Your task to perform on an android device: Search for logitech g pro on target, select the first entry, add it to the cart, then select checkout. Image 0: 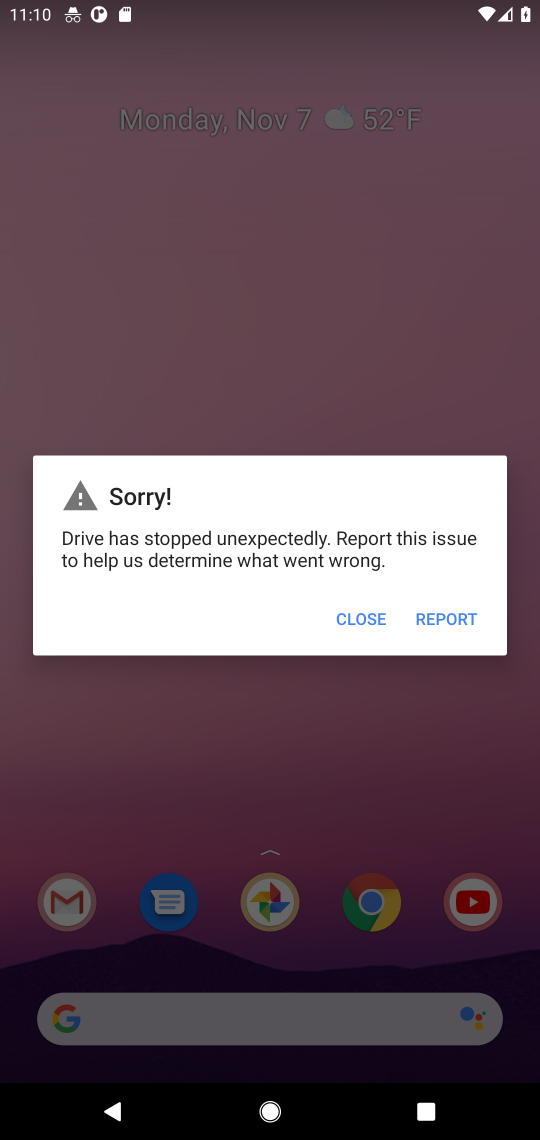
Step 0: press home button
Your task to perform on an android device: Search for logitech g pro on target, select the first entry, add it to the cart, then select checkout. Image 1: 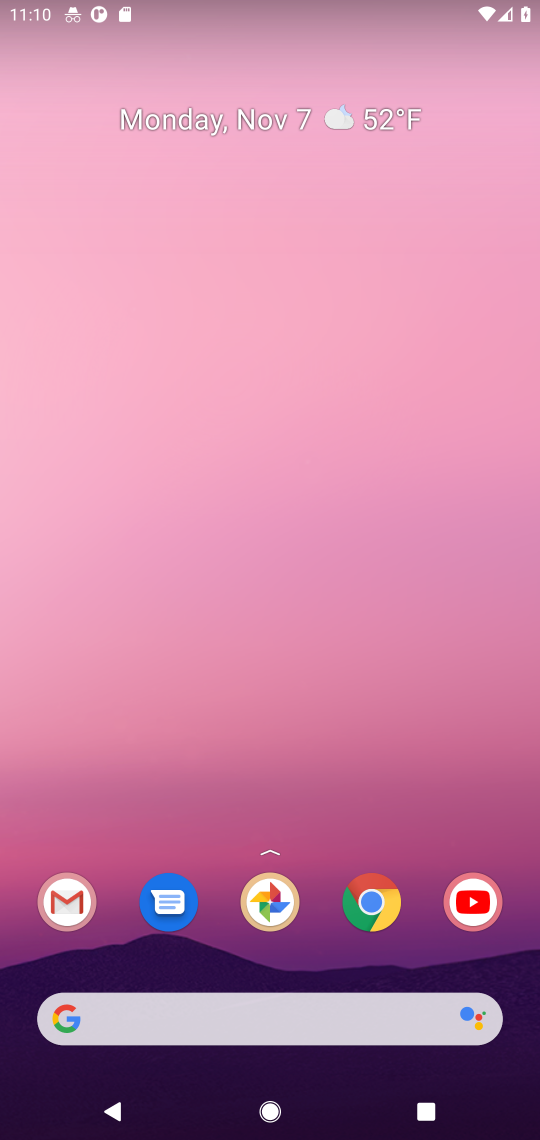
Step 1: click (370, 907)
Your task to perform on an android device: Search for logitech g pro on target, select the first entry, add it to the cart, then select checkout. Image 2: 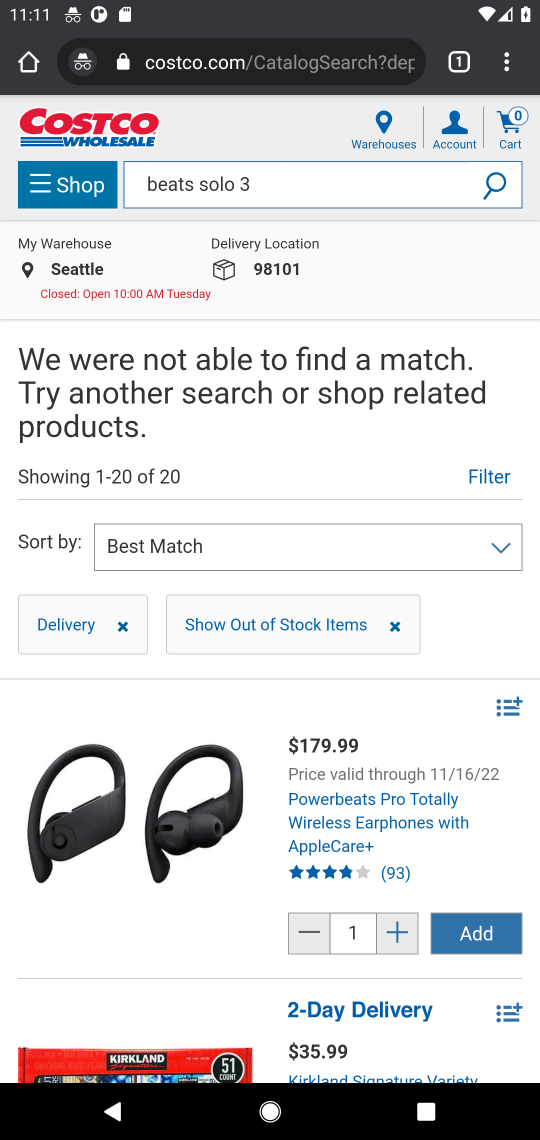
Step 2: click (258, 73)
Your task to perform on an android device: Search for logitech g pro on target, select the first entry, add it to the cart, then select checkout. Image 3: 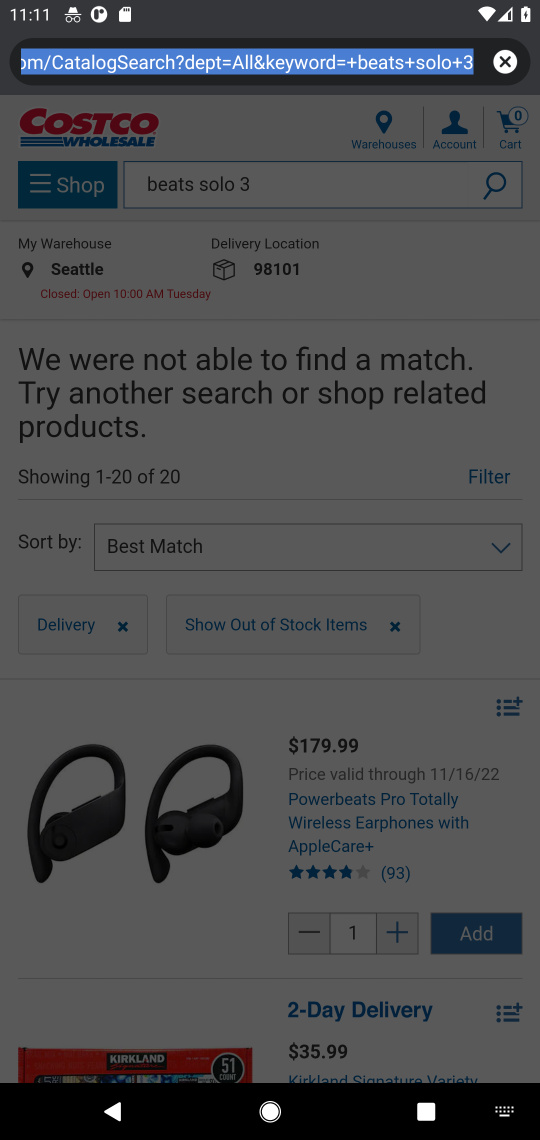
Step 3: type "target.com"
Your task to perform on an android device: Search for logitech g pro on target, select the first entry, add it to the cart, then select checkout. Image 4: 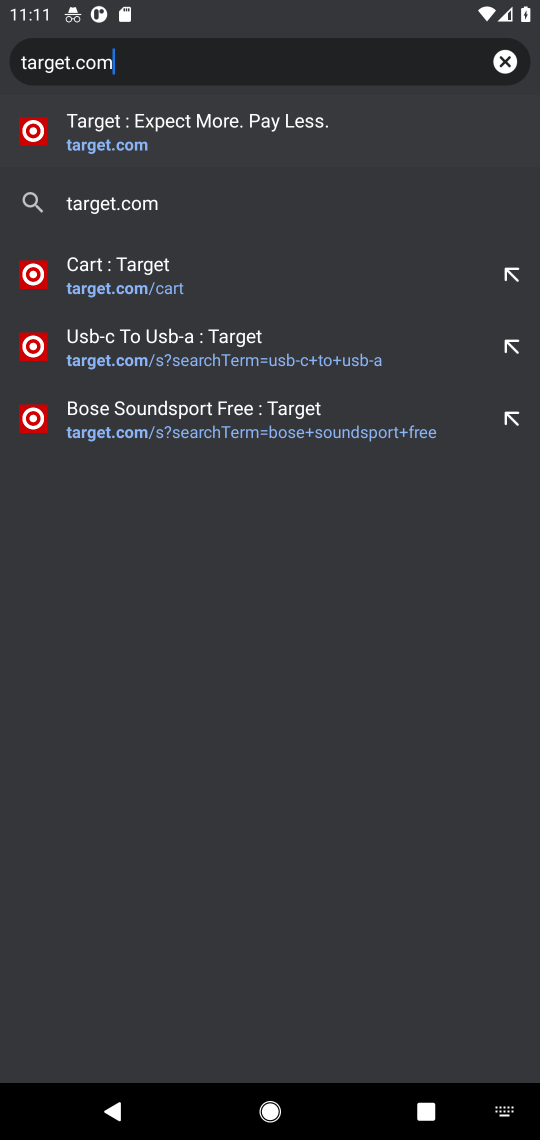
Step 4: click (167, 139)
Your task to perform on an android device: Search for logitech g pro on target, select the first entry, add it to the cart, then select checkout. Image 5: 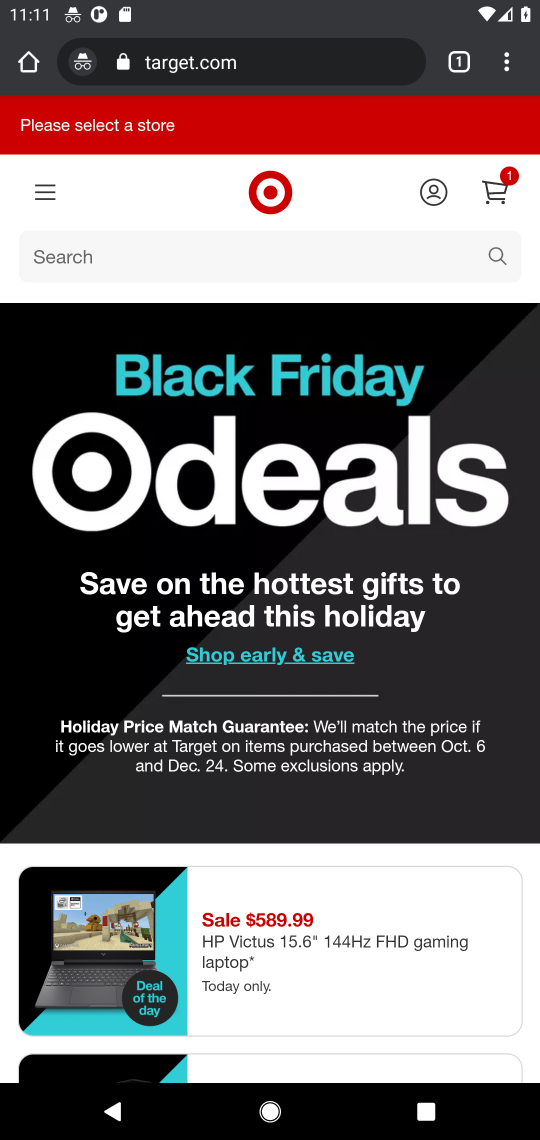
Step 5: click (487, 256)
Your task to perform on an android device: Search for logitech g pro on target, select the first entry, add it to the cart, then select checkout. Image 6: 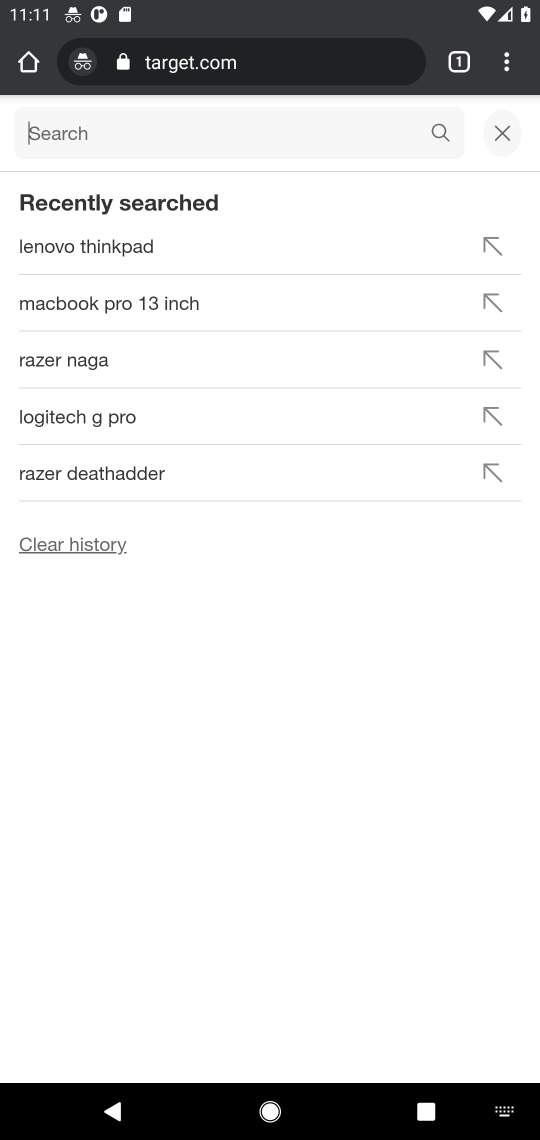
Step 6: type "logitech g pro"
Your task to perform on an android device: Search for logitech g pro on target, select the first entry, add it to the cart, then select checkout. Image 7: 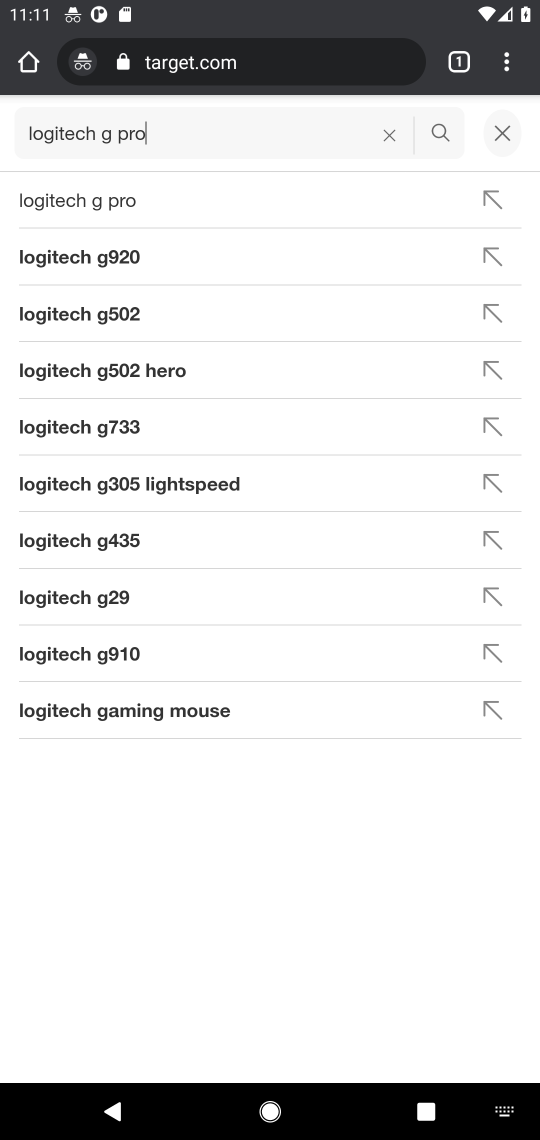
Step 7: click (100, 209)
Your task to perform on an android device: Search for logitech g pro on target, select the first entry, add it to the cart, then select checkout. Image 8: 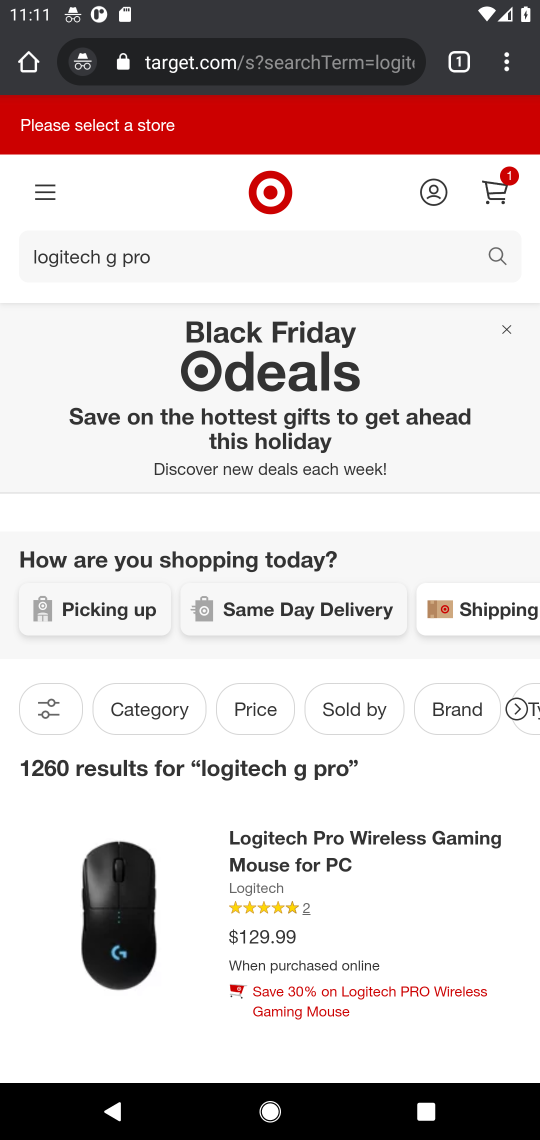
Step 8: task complete